Your task to perform on an android device: Open wifi settings Image 0: 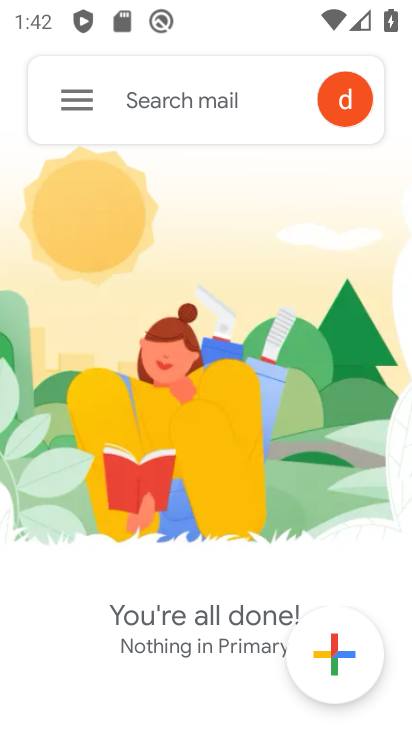
Step 0: press home button
Your task to perform on an android device: Open wifi settings Image 1: 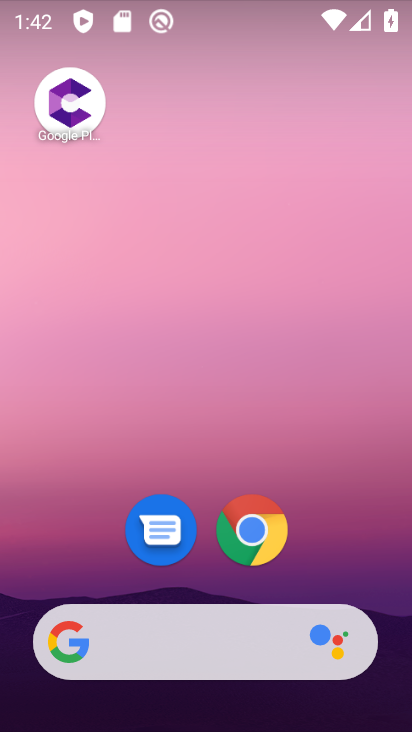
Step 1: click (114, 11)
Your task to perform on an android device: Open wifi settings Image 2: 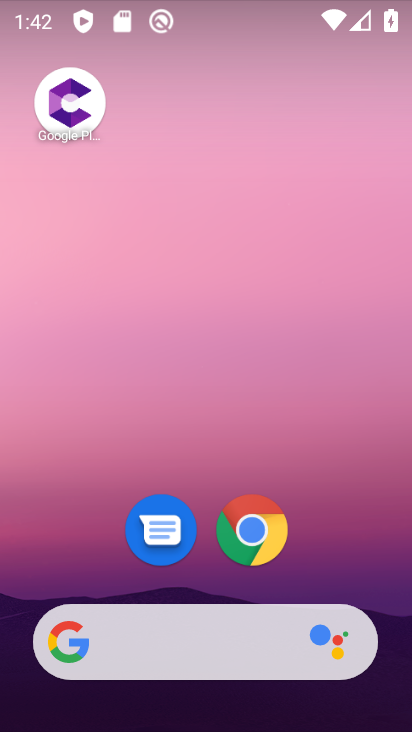
Step 2: drag from (157, 722) to (255, 117)
Your task to perform on an android device: Open wifi settings Image 3: 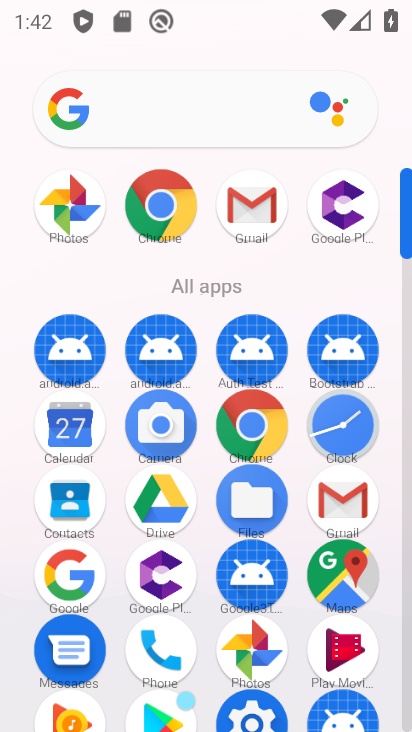
Step 3: drag from (118, 562) to (111, 253)
Your task to perform on an android device: Open wifi settings Image 4: 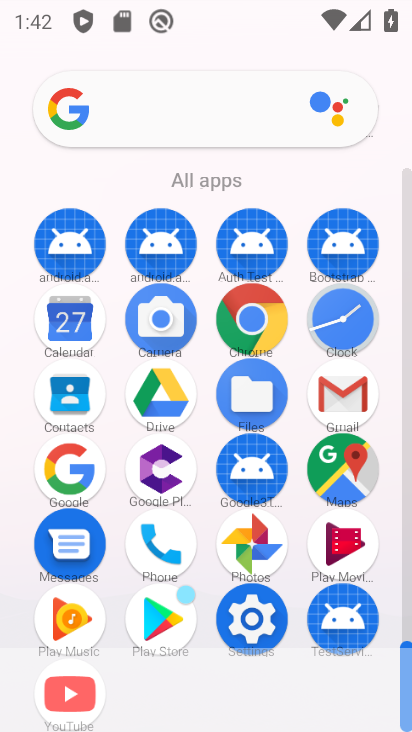
Step 4: click (251, 630)
Your task to perform on an android device: Open wifi settings Image 5: 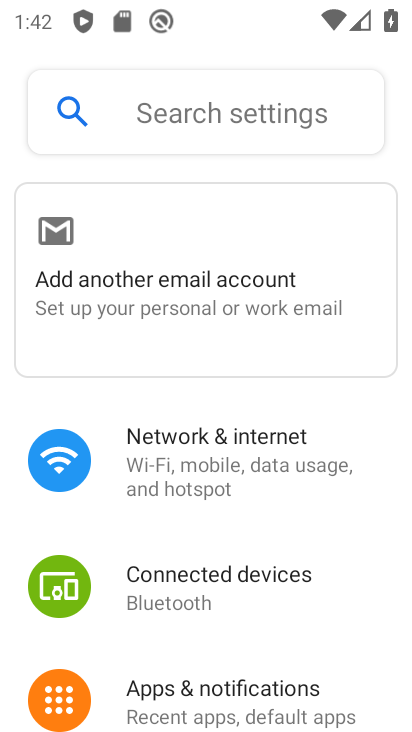
Step 5: click (258, 490)
Your task to perform on an android device: Open wifi settings Image 6: 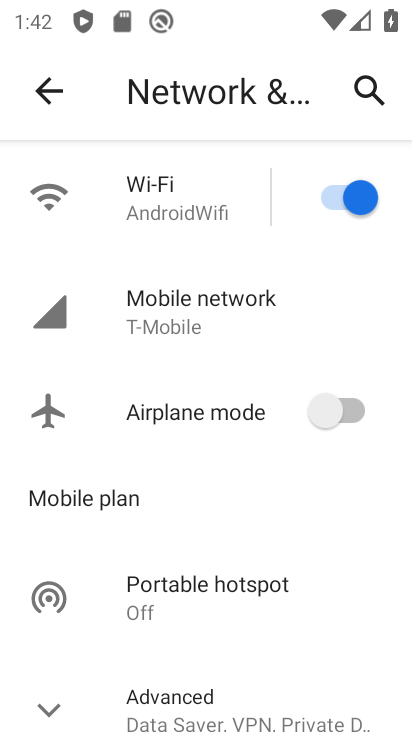
Step 6: click (133, 212)
Your task to perform on an android device: Open wifi settings Image 7: 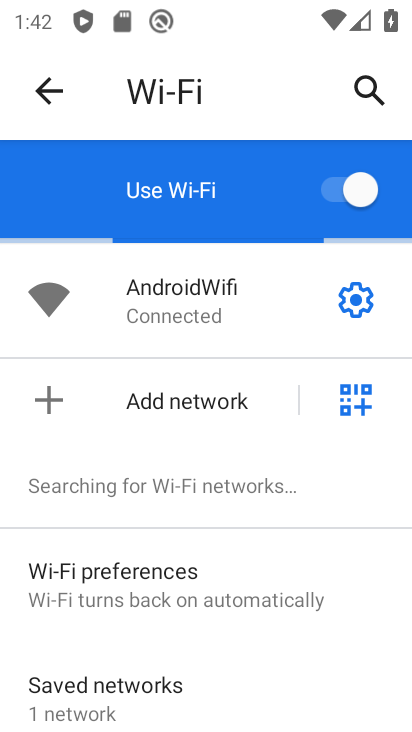
Step 7: task complete